Your task to perform on an android device: add a contact in the contacts app Image 0: 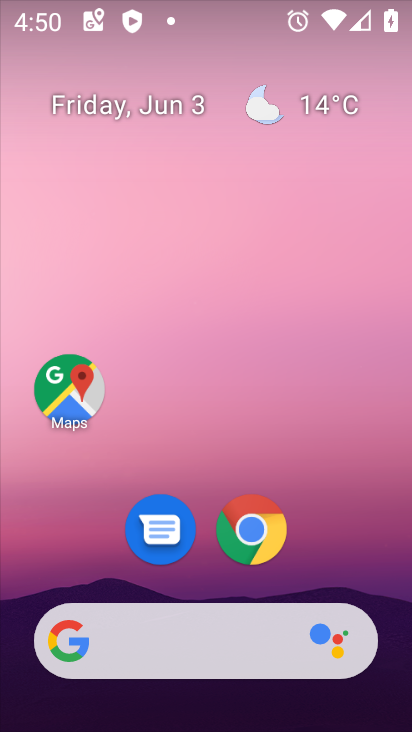
Step 0: press home button
Your task to perform on an android device: add a contact in the contacts app Image 1: 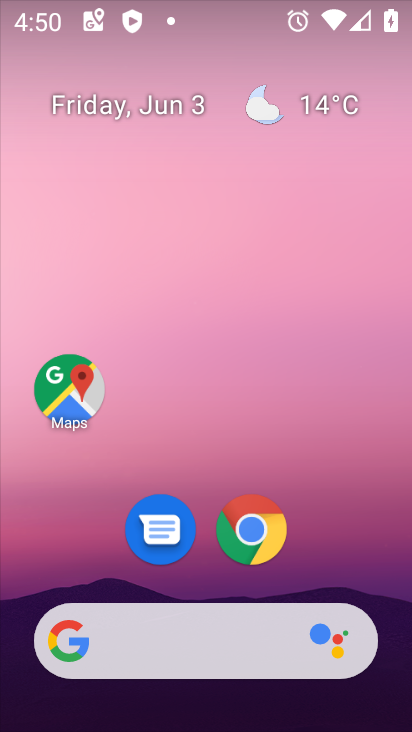
Step 1: drag from (212, 506) to (225, 106)
Your task to perform on an android device: add a contact in the contacts app Image 2: 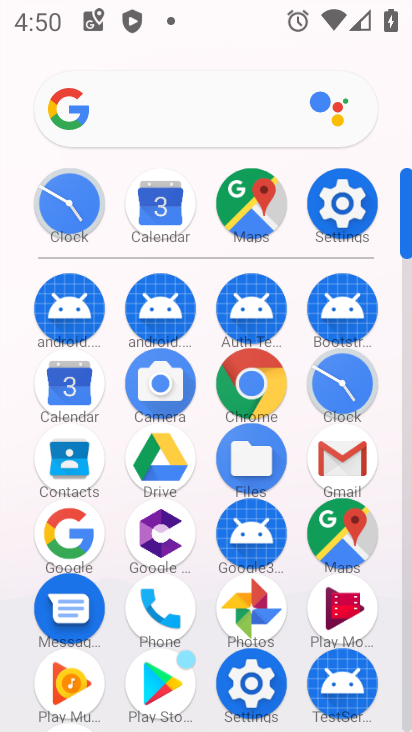
Step 2: click (68, 451)
Your task to perform on an android device: add a contact in the contacts app Image 3: 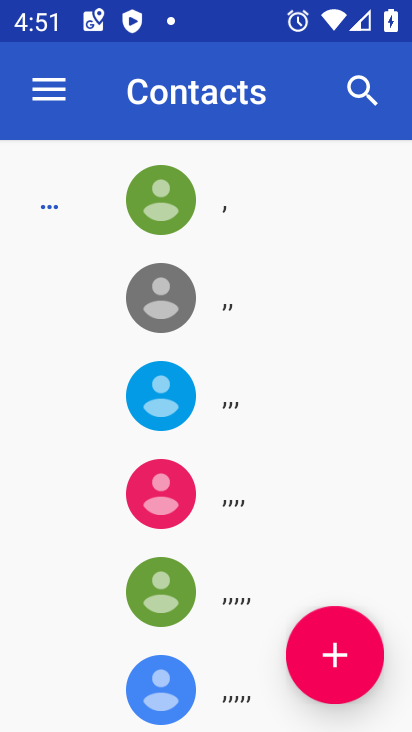
Step 3: click (330, 646)
Your task to perform on an android device: add a contact in the contacts app Image 4: 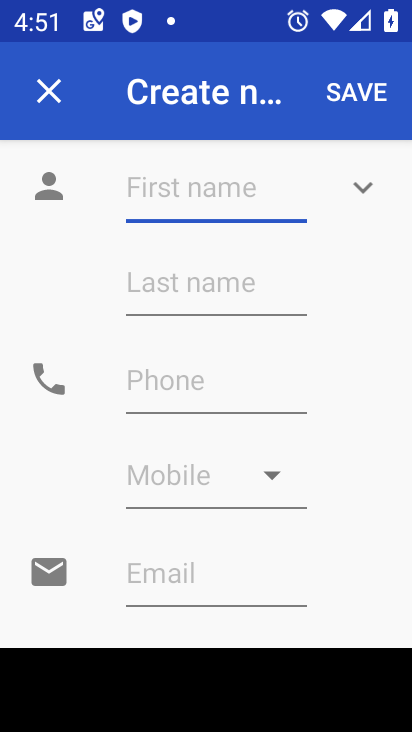
Step 4: type "hggdthtf"
Your task to perform on an android device: add a contact in the contacts app Image 5: 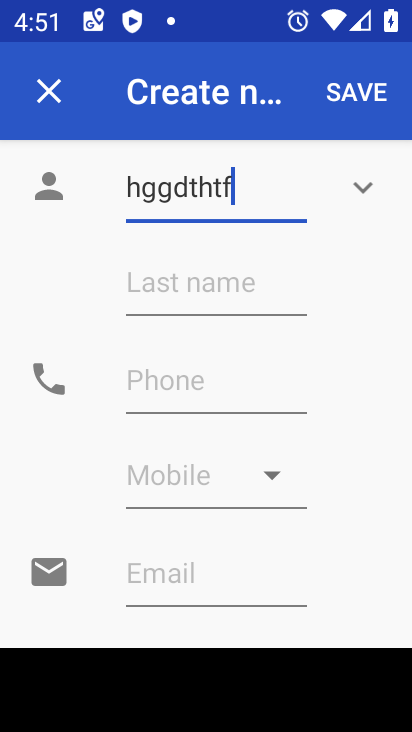
Step 5: click (367, 98)
Your task to perform on an android device: add a contact in the contacts app Image 6: 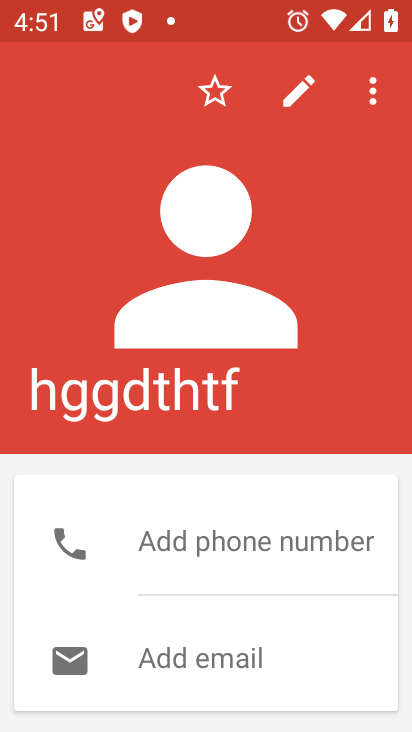
Step 6: task complete